Your task to perform on an android device: Is it going to rain tomorrow? Image 0: 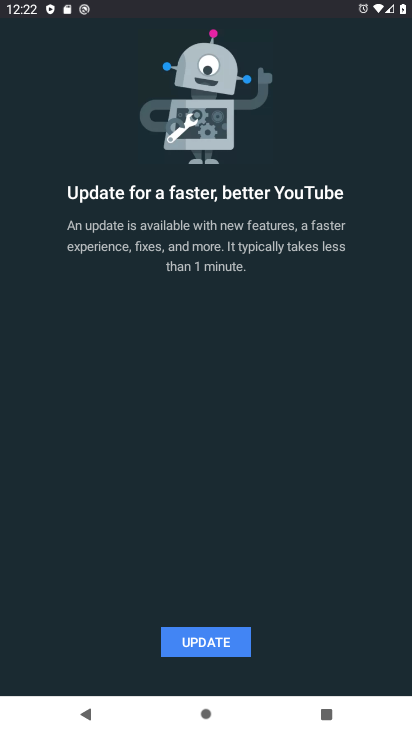
Step 0: press home button
Your task to perform on an android device: Is it going to rain tomorrow? Image 1: 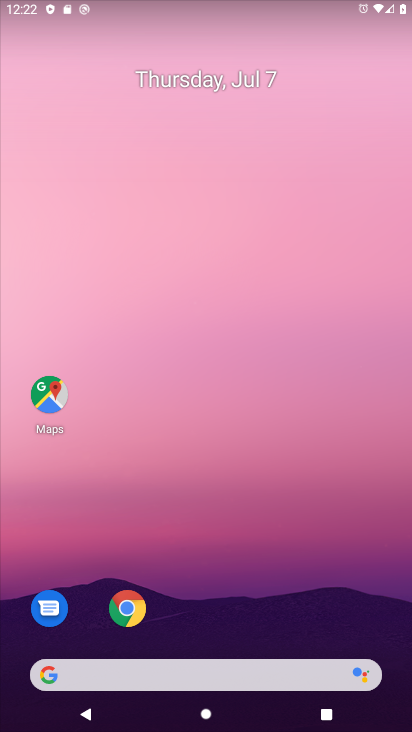
Step 1: click (241, 665)
Your task to perform on an android device: Is it going to rain tomorrow? Image 2: 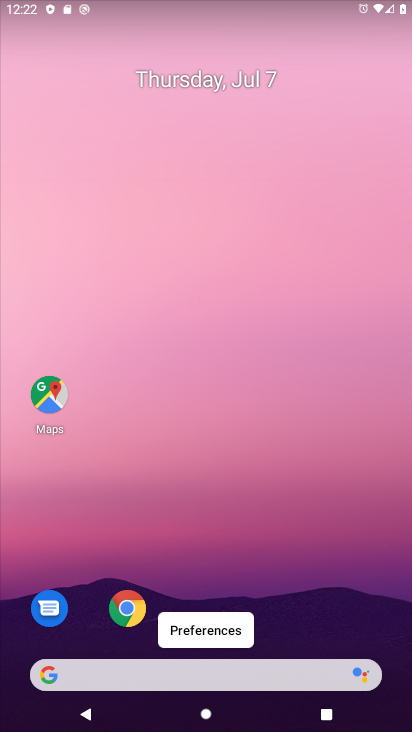
Step 2: click (201, 667)
Your task to perform on an android device: Is it going to rain tomorrow? Image 3: 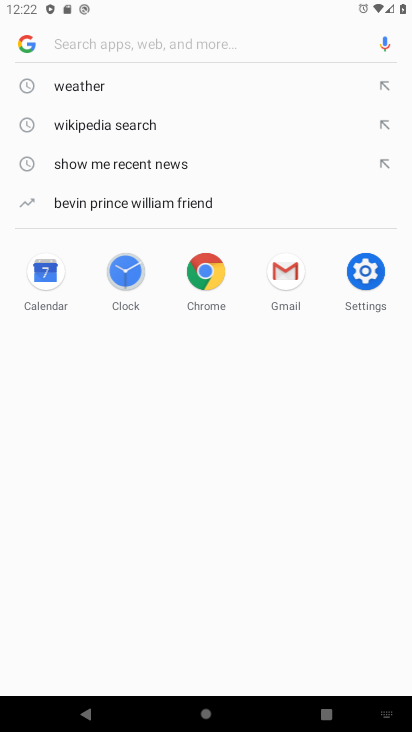
Step 3: click (105, 91)
Your task to perform on an android device: Is it going to rain tomorrow? Image 4: 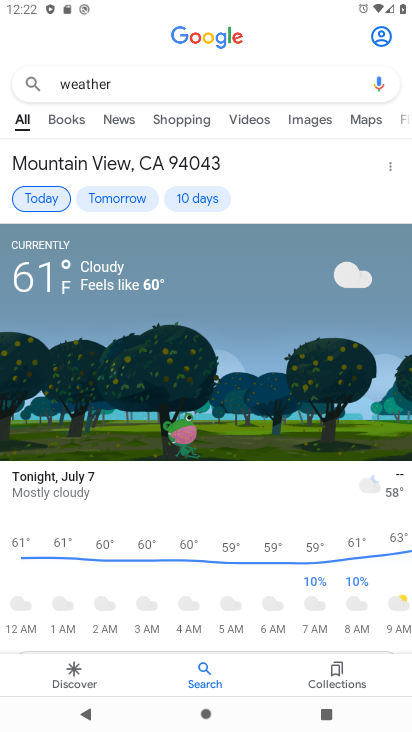
Step 4: click (112, 188)
Your task to perform on an android device: Is it going to rain tomorrow? Image 5: 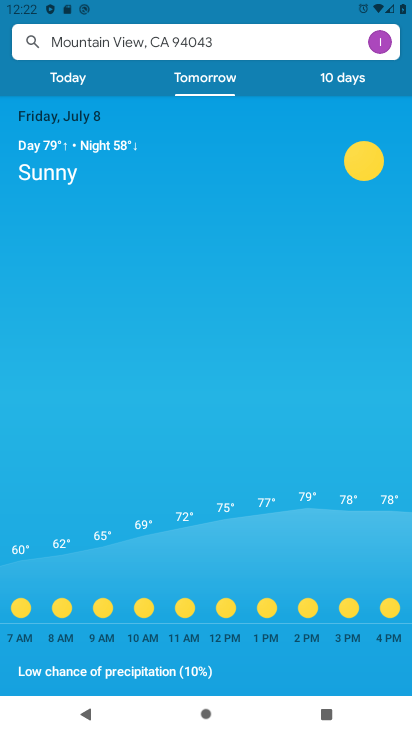
Step 5: task complete